Your task to perform on an android device: find snoozed emails in the gmail app Image 0: 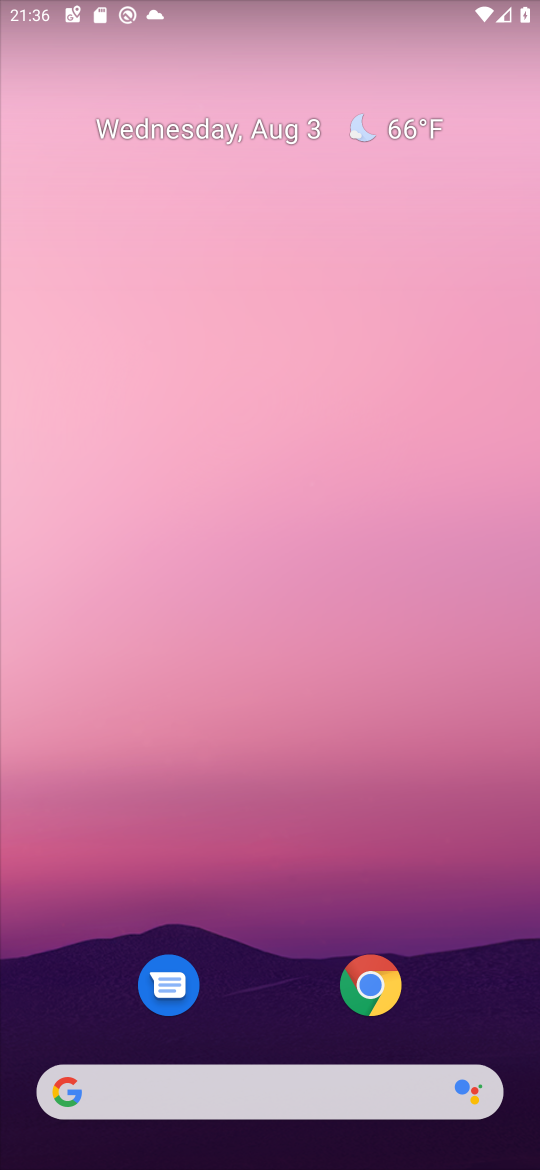
Step 0: drag from (276, 979) to (281, 214)
Your task to perform on an android device: find snoozed emails in the gmail app Image 1: 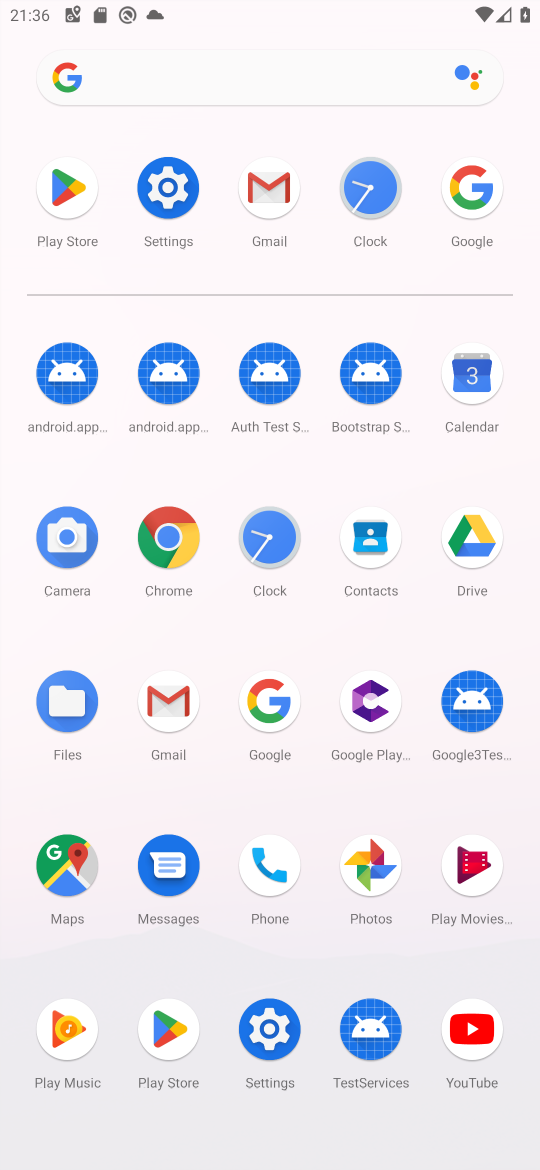
Step 1: click (272, 241)
Your task to perform on an android device: find snoozed emails in the gmail app Image 2: 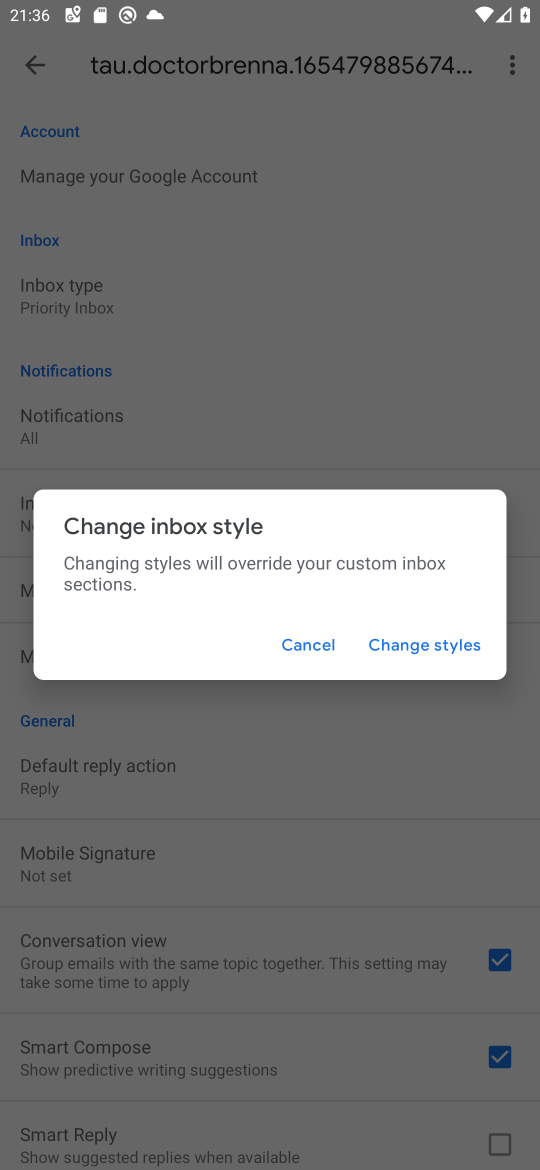
Step 2: click (327, 641)
Your task to perform on an android device: find snoozed emails in the gmail app Image 3: 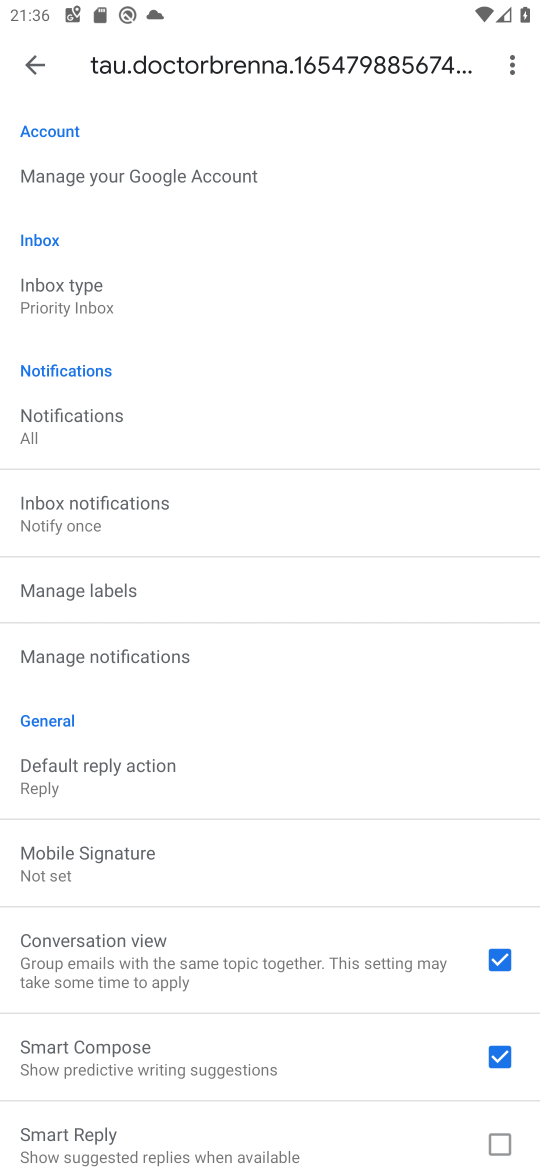
Step 3: click (32, 80)
Your task to perform on an android device: find snoozed emails in the gmail app Image 4: 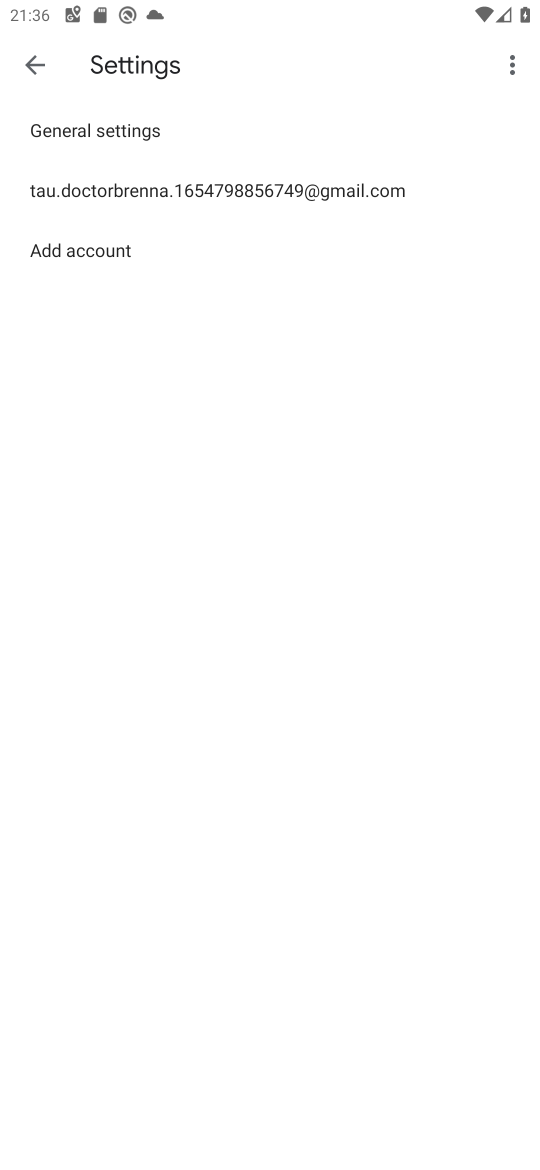
Step 4: click (49, 76)
Your task to perform on an android device: find snoozed emails in the gmail app Image 5: 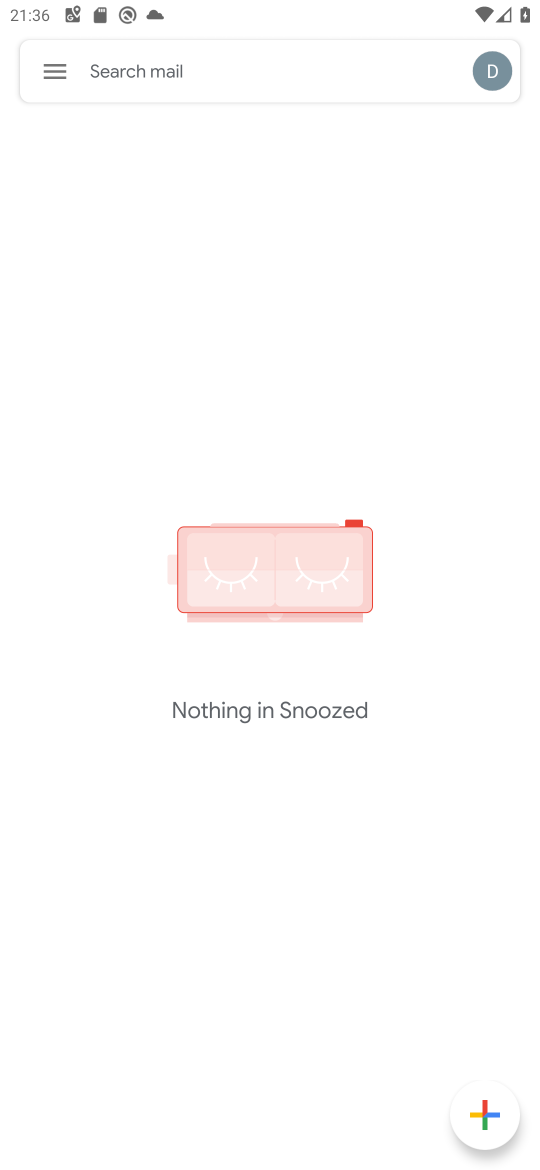
Step 5: click (38, 79)
Your task to perform on an android device: find snoozed emails in the gmail app Image 6: 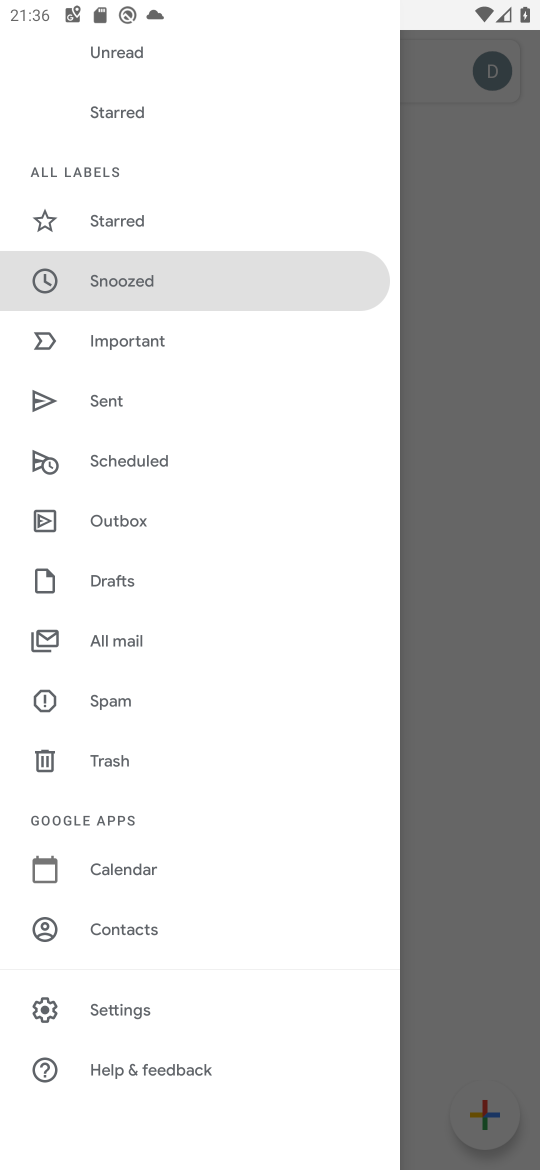
Step 6: click (166, 282)
Your task to perform on an android device: find snoozed emails in the gmail app Image 7: 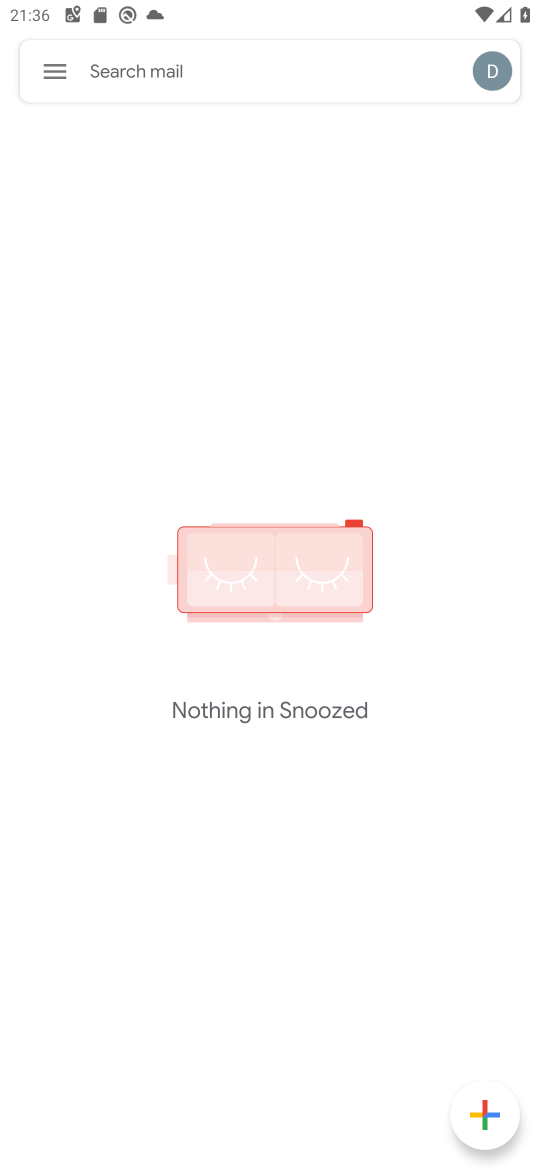
Step 7: task complete